Your task to perform on an android device: show emergency info Image 0: 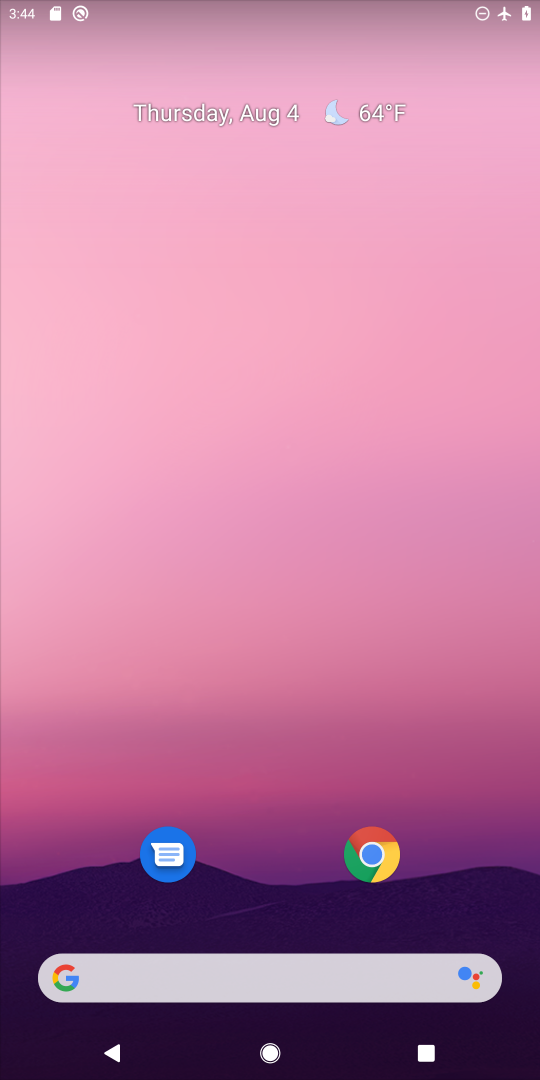
Step 0: drag from (289, 797) to (325, 176)
Your task to perform on an android device: show emergency info Image 1: 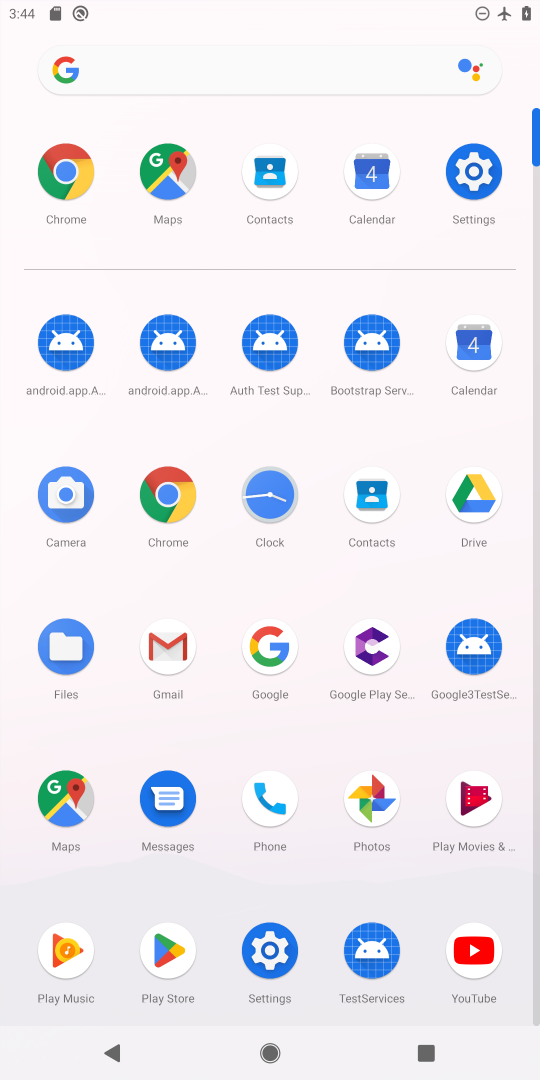
Step 1: click (275, 955)
Your task to perform on an android device: show emergency info Image 2: 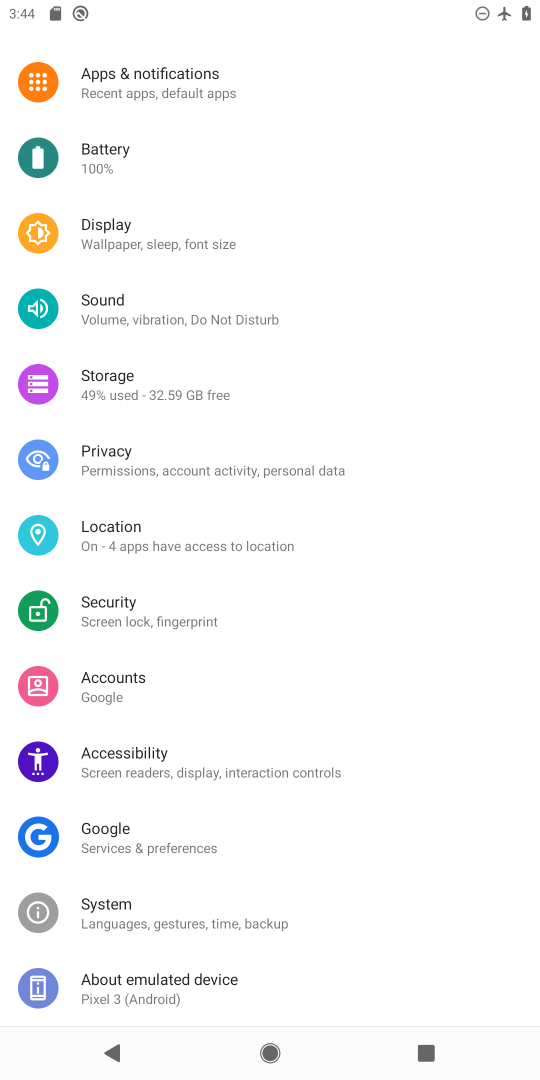
Step 2: click (179, 920)
Your task to perform on an android device: show emergency info Image 3: 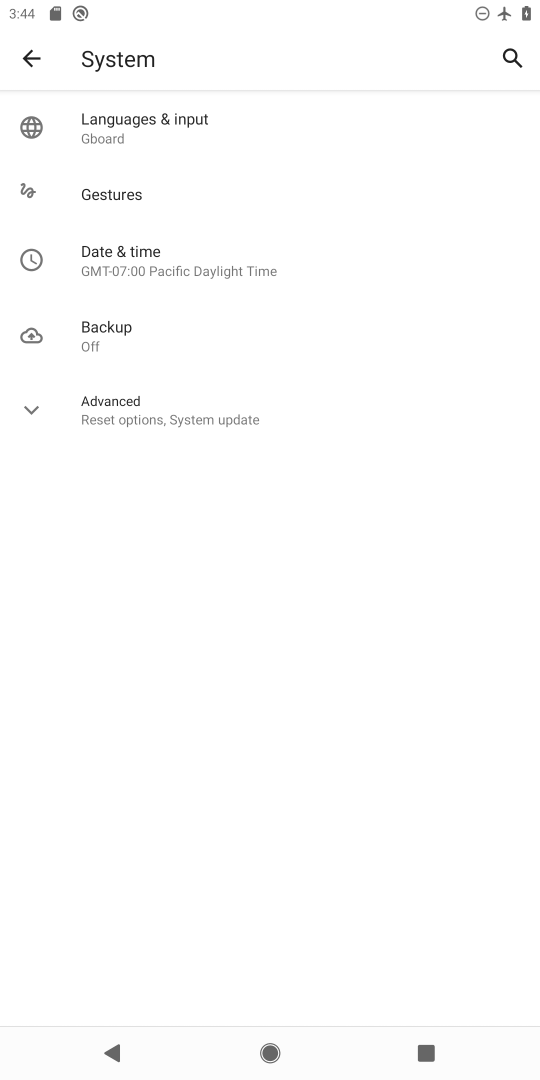
Step 3: task complete